Your task to perform on an android device: Open Maps and search for coffee Image 0: 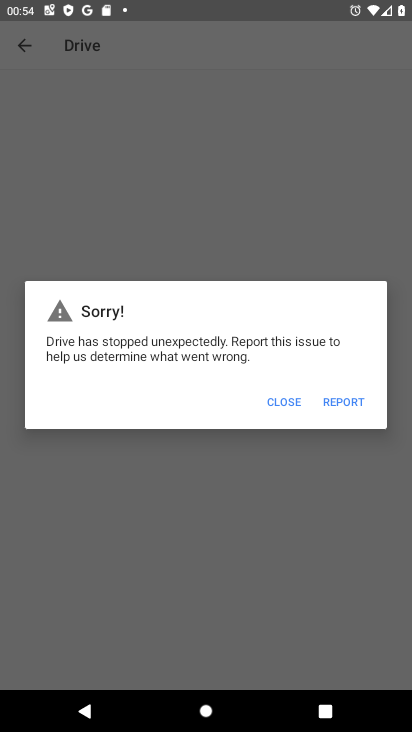
Step 0: press home button
Your task to perform on an android device: Open Maps and search for coffee Image 1: 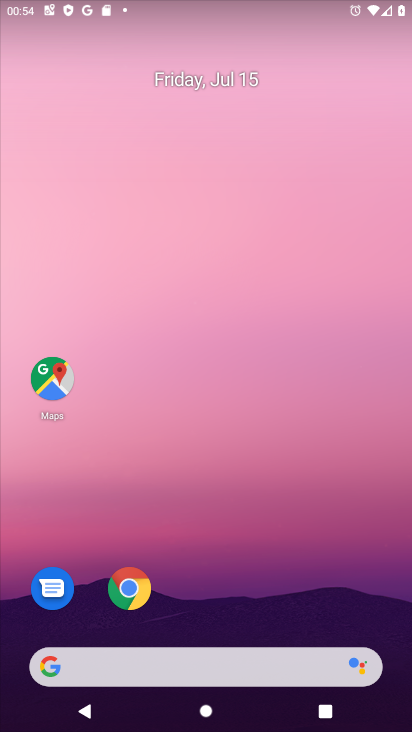
Step 1: click (46, 371)
Your task to perform on an android device: Open Maps and search for coffee Image 2: 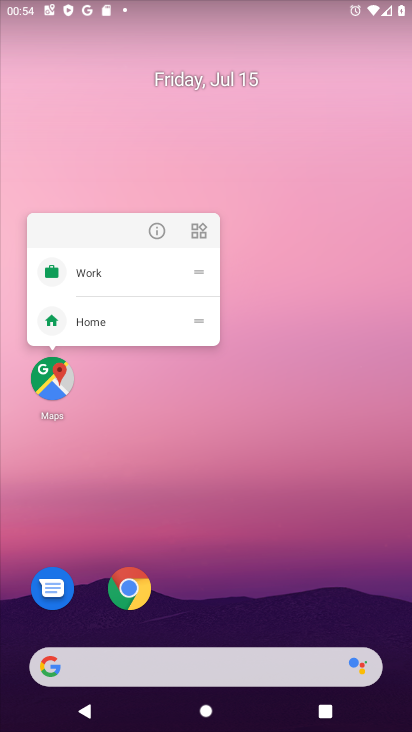
Step 2: click (49, 398)
Your task to perform on an android device: Open Maps and search for coffee Image 3: 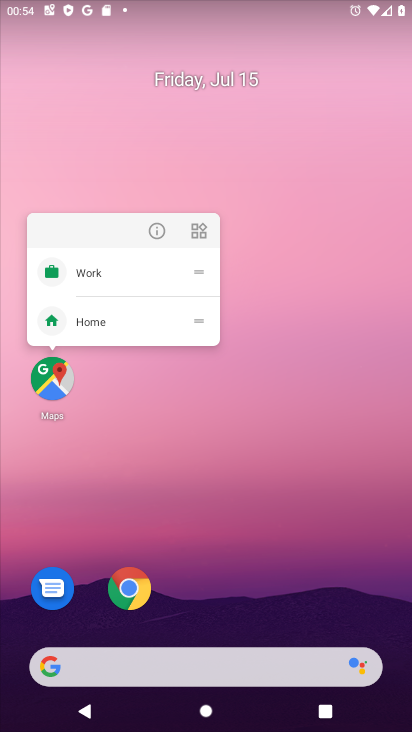
Step 3: click (55, 380)
Your task to perform on an android device: Open Maps and search for coffee Image 4: 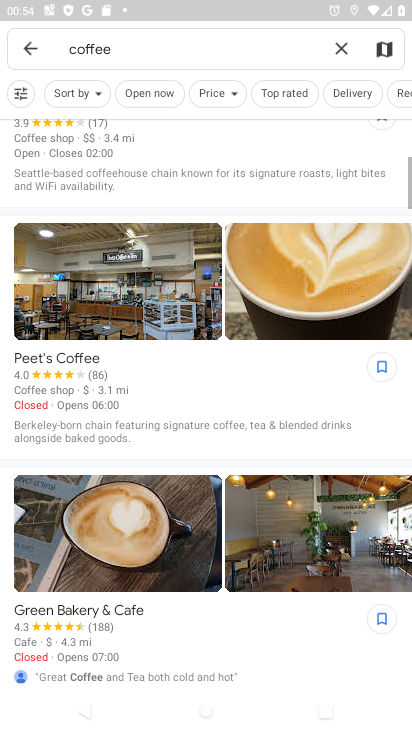
Step 4: task complete